Your task to perform on an android device: Go to CNN.com Image 0: 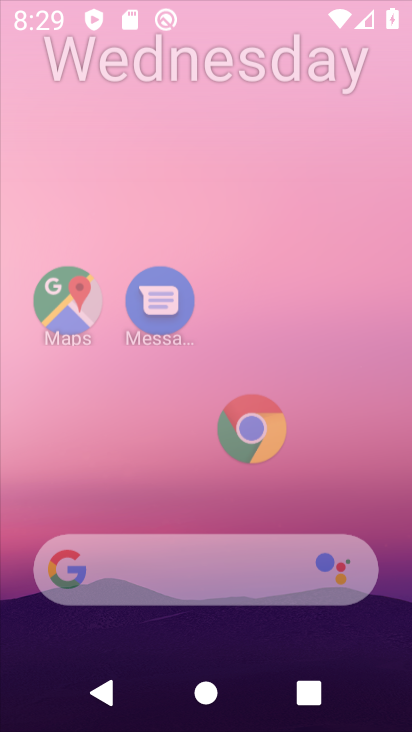
Step 0: drag from (187, 536) to (179, 86)
Your task to perform on an android device: Go to CNN.com Image 1: 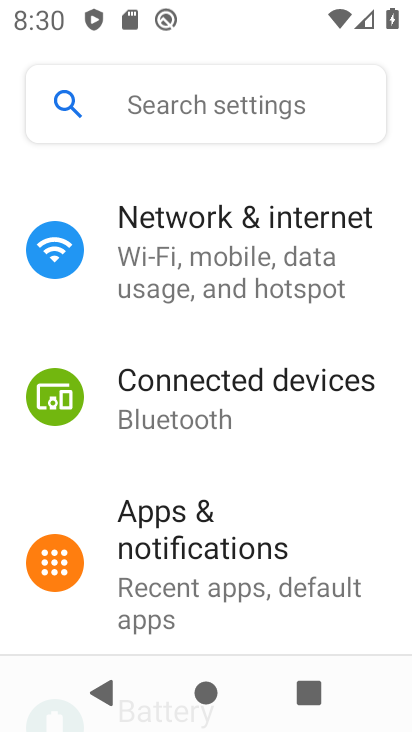
Step 1: press home button
Your task to perform on an android device: Go to CNN.com Image 2: 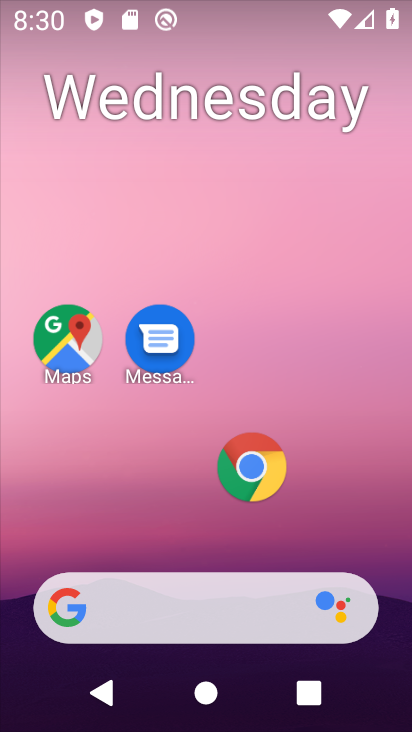
Step 2: drag from (157, 559) to (168, 96)
Your task to perform on an android device: Go to CNN.com Image 3: 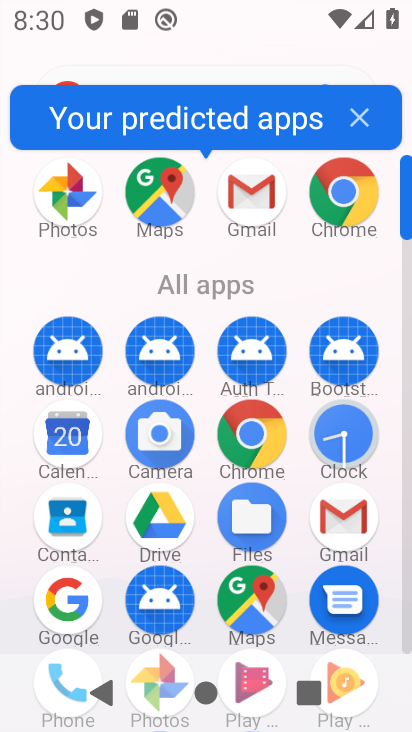
Step 3: click (70, 597)
Your task to perform on an android device: Go to CNN.com Image 4: 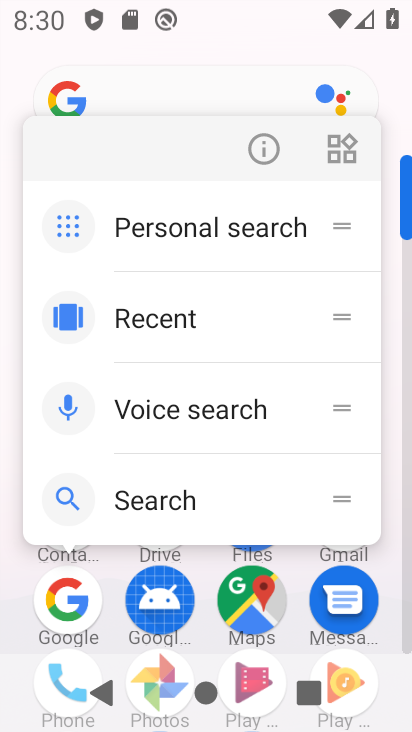
Step 4: click (70, 600)
Your task to perform on an android device: Go to CNN.com Image 5: 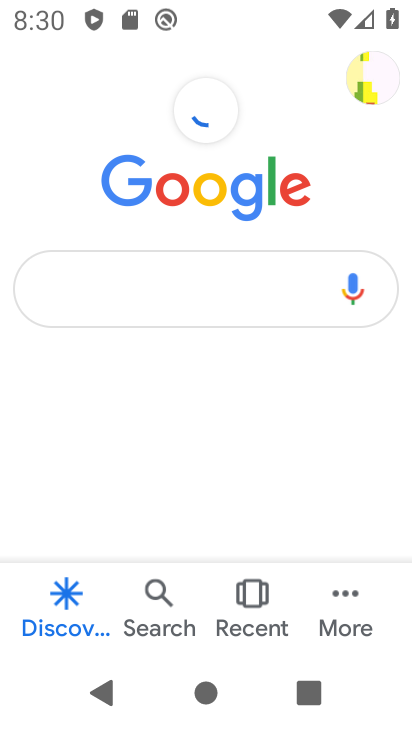
Step 5: click (152, 291)
Your task to perform on an android device: Go to CNN.com Image 6: 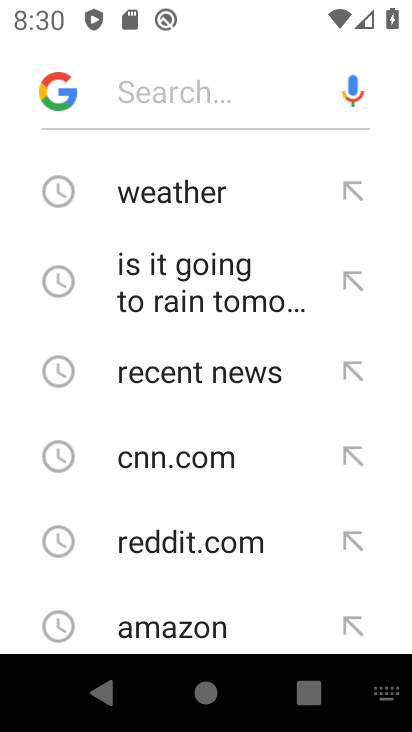
Step 6: click (173, 457)
Your task to perform on an android device: Go to CNN.com Image 7: 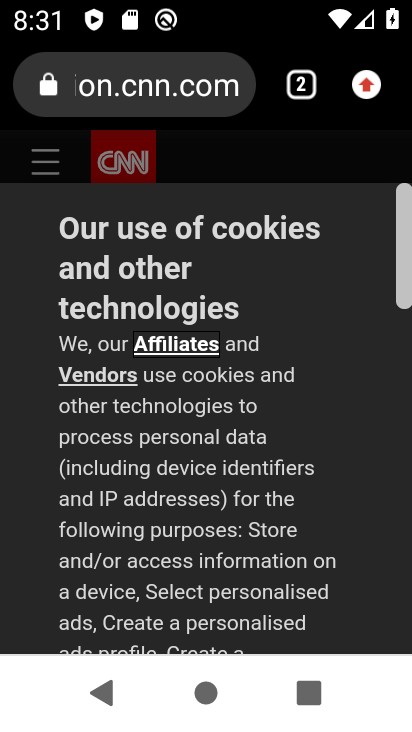
Step 7: task complete